Your task to perform on an android device: Open accessibility settings Image 0: 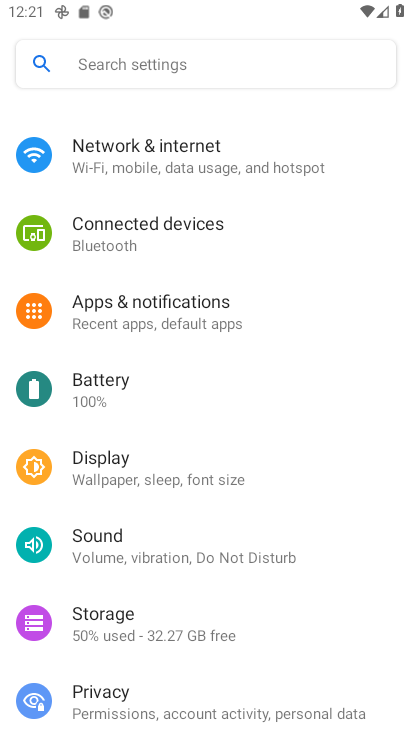
Step 0: drag from (192, 687) to (267, 187)
Your task to perform on an android device: Open accessibility settings Image 1: 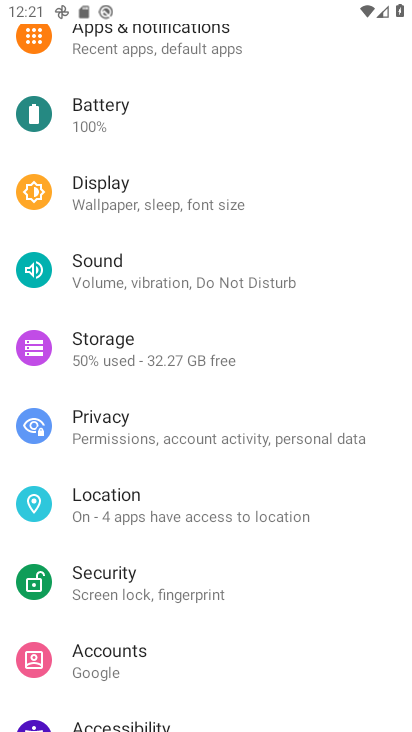
Step 1: drag from (179, 602) to (300, 177)
Your task to perform on an android device: Open accessibility settings Image 2: 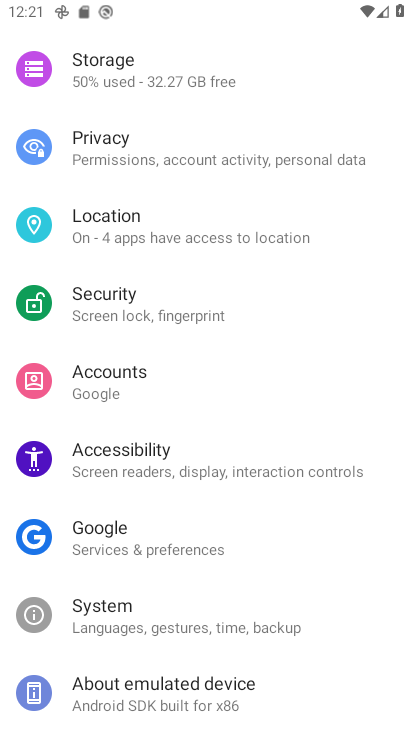
Step 2: click (194, 468)
Your task to perform on an android device: Open accessibility settings Image 3: 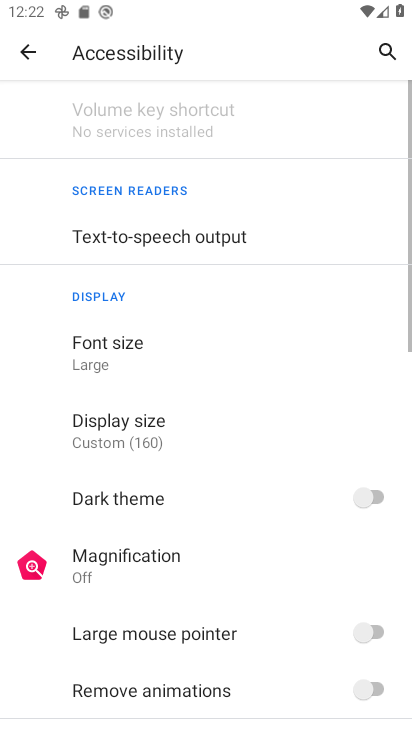
Step 3: task complete